Your task to perform on an android device: toggle priority inbox in the gmail app Image 0: 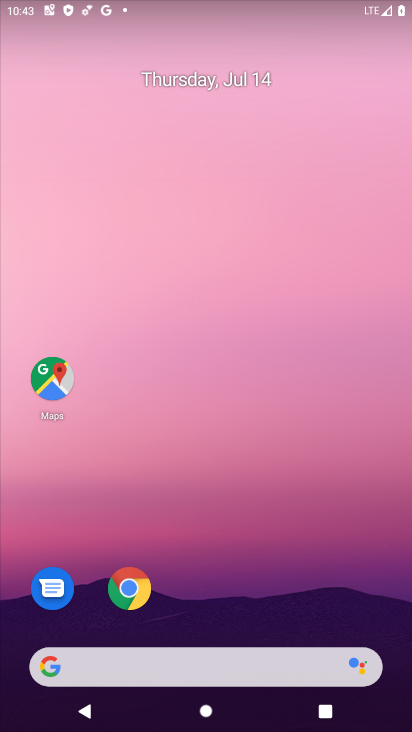
Step 0: drag from (145, 658) to (322, 244)
Your task to perform on an android device: toggle priority inbox in the gmail app Image 1: 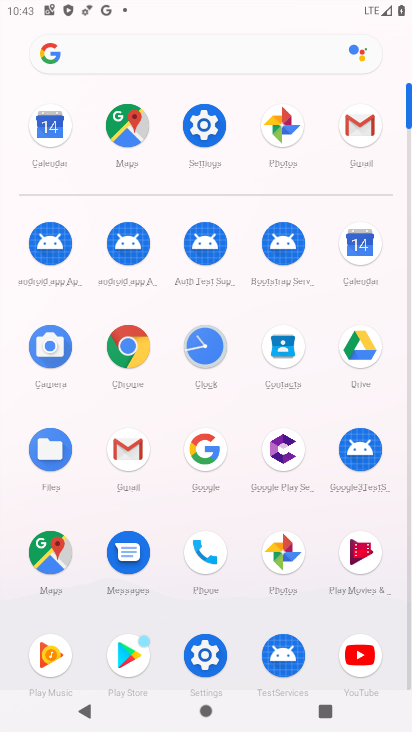
Step 1: click (364, 134)
Your task to perform on an android device: toggle priority inbox in the gmail app Image 2: 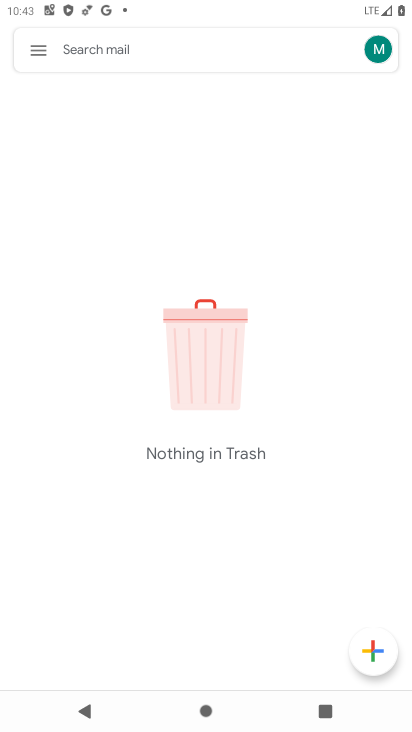
Step 2: click (43, 42)
Your task to perform on an android device: toggle priority inbox in the gmail app Image 3: 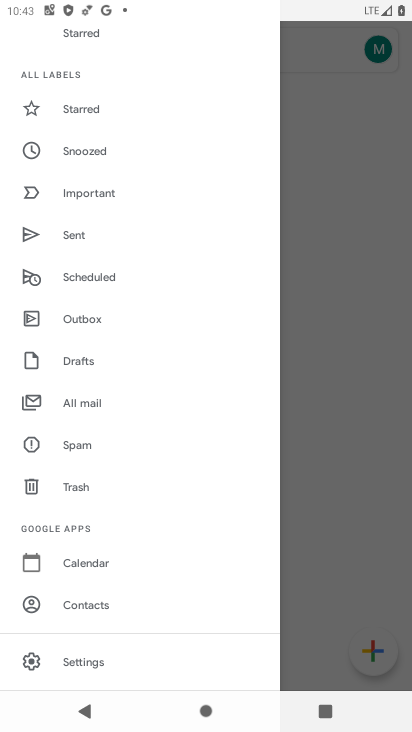
Step 3: click (95, 655)
Your task to perform on an android device: toggle priority inbox in the gmail app Image 4: 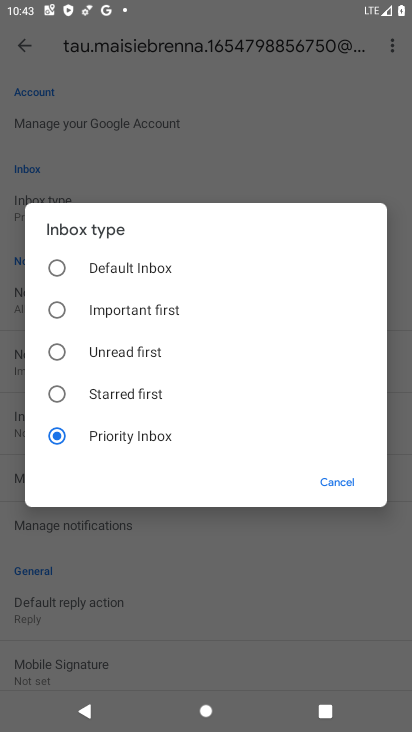
Step 4: click (64, 266)
Your task to perform on an android device: toggle priority inbox in the gmail app Image 5: 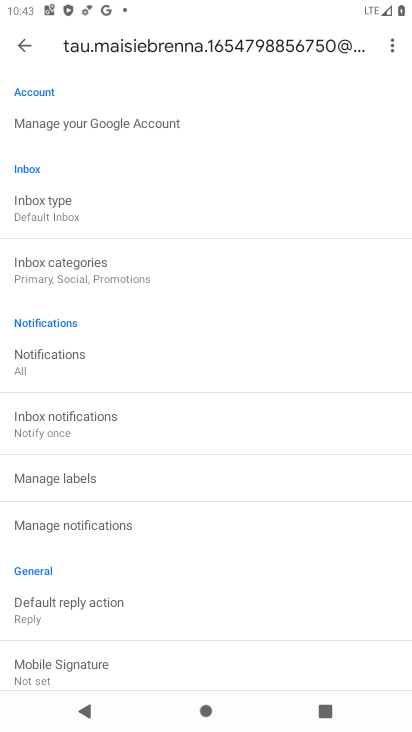
Step 5: task complete